Your task to perform on an android device: What's the weather today? Image 0: 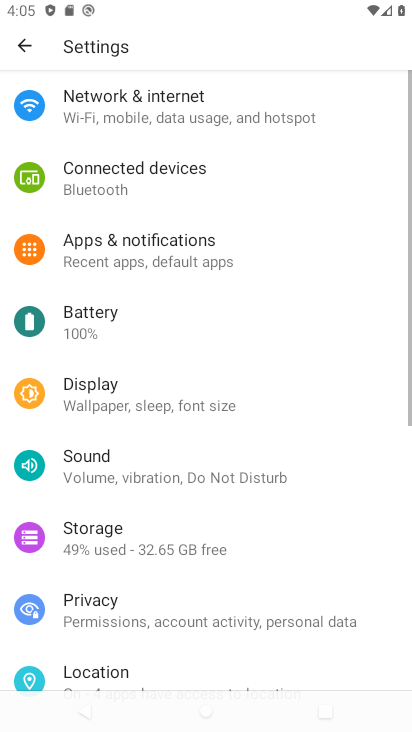
Step 0: press home button
Your task to perform on an android device: What's the weather today? Image 1: 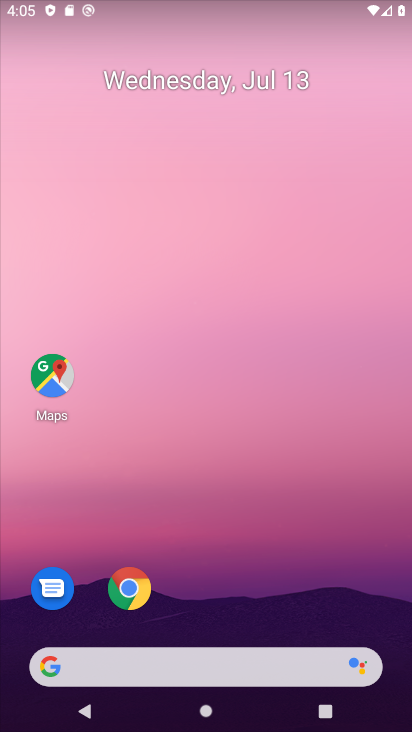
Step 1: click (135, 658)
Your task to perform on an android device: What's the weather today? Image 2: 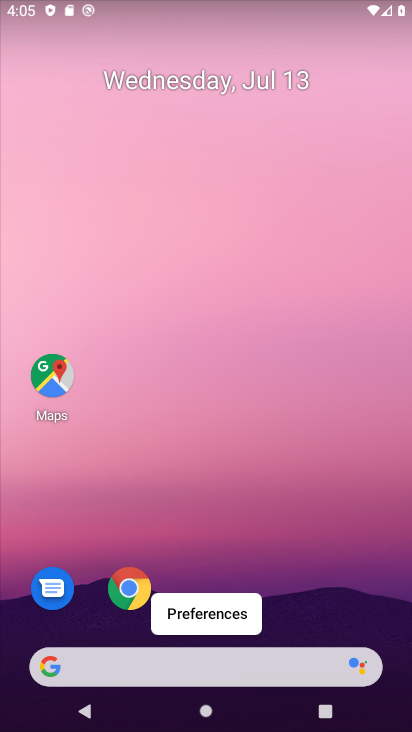
Step 2: click (106, 656)
Your task to perform on an android device: What's the weather today? Image 3: 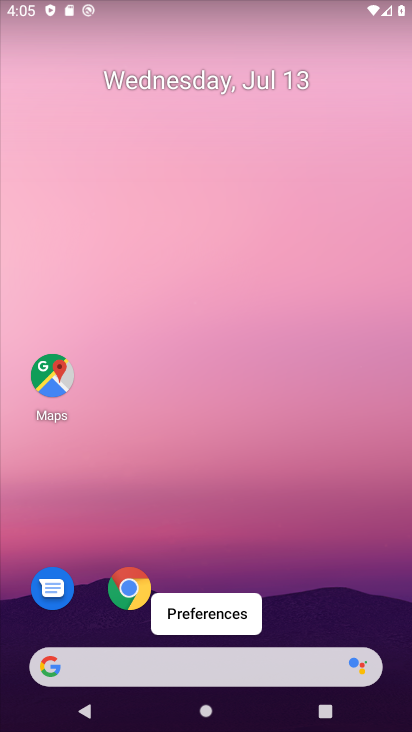
Step 3: click (91, 671)
Your task to perform on an android device: What's the weather today? Image 4: 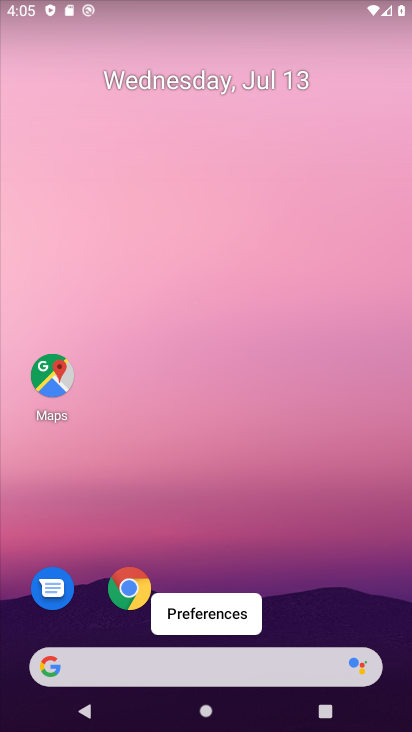
Step 4: click (99, 665)
Your task to perform on an android device: What's the weather today? Image 5: 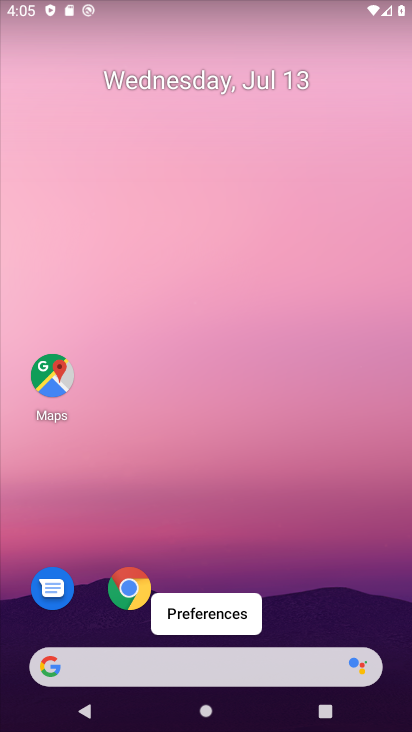
Step 5: task complete